Your task to perform on an android device: turn vacation reply on in the gmail app Image 0: 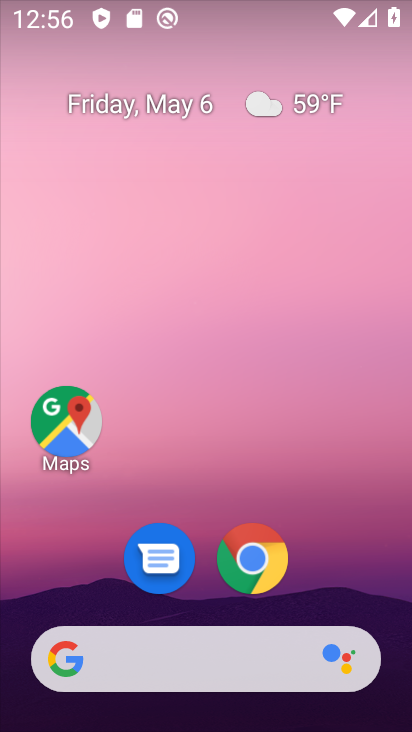
Step 0: drag from (220, 722) to (215, 283)
Your task to perform on an android device: turn vacation reply on in the gmail app Image 1: 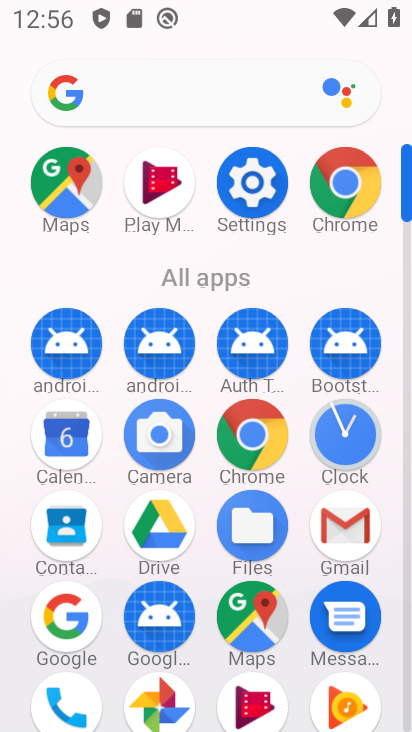
Step 1: click (348, 505)
Your task to perform on an android device: turn vacation reply on in the gmail app Image 2: 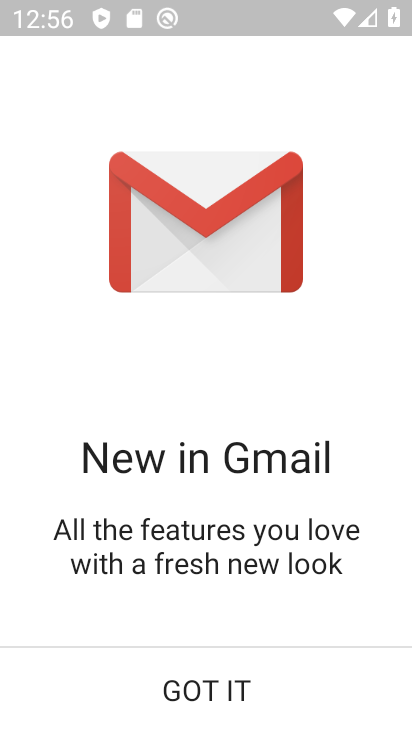
Step 2: click (222, 671)
Your task to perform on an android device: turn vacation reply on in the gmail app Image 3: 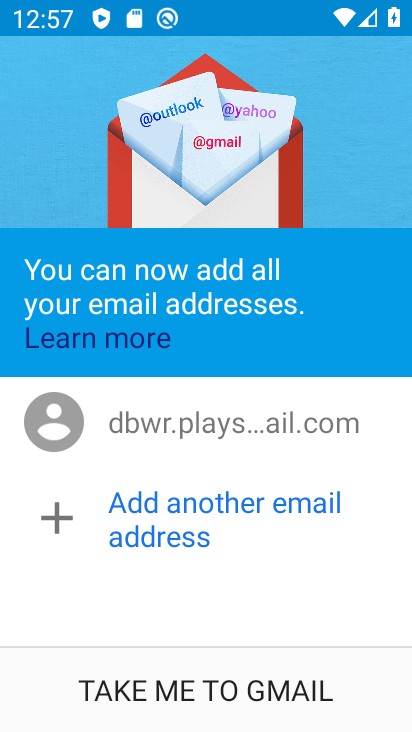
Step 3: click (211, 680)
Your task to perform on an android device: turn vacation reply on in the gmail app Image 4: 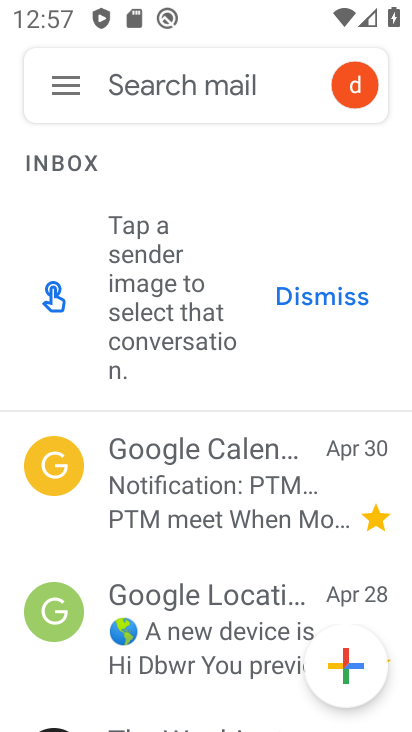
Step 4: click (67, 90)
Your task to perform on an android device: turn vacation reply on in the gmail app Image 5: 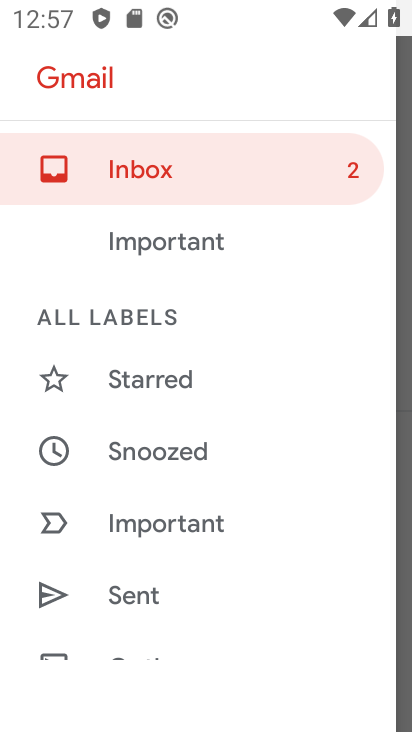
Step 5: drag from (183, 652) to (184, 455)
Your task to perform on an android device: turn vacation reply on in the gmail app Image 6: 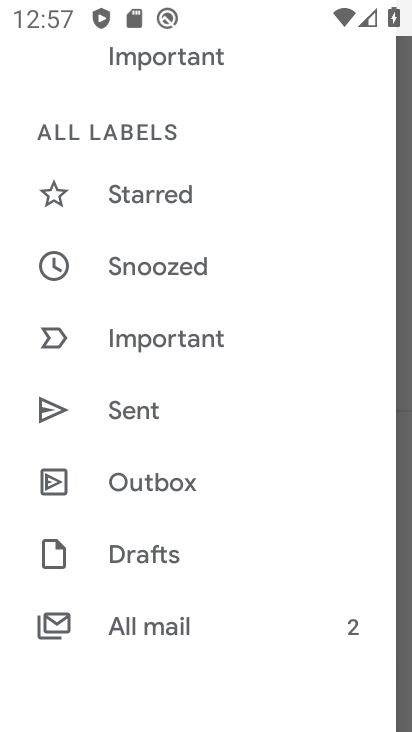
Step 6: drag from (172, 634) to (182, 297)
Your task to perform on an android device: turn vacation reply on in the gmail app Image 7: 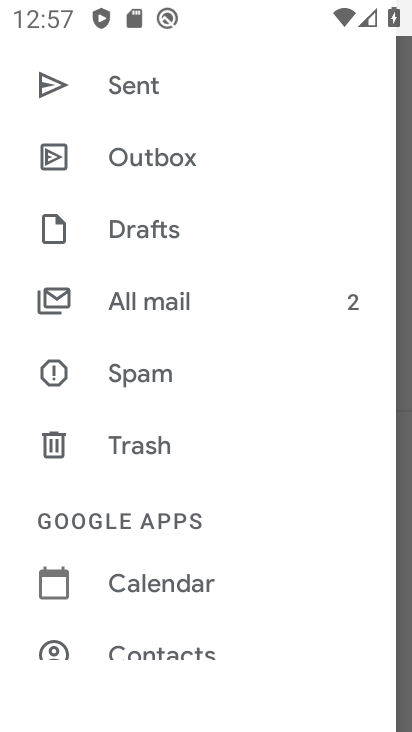
Step 7: drag from (165, 647) to (168, 344)
Your task to perform on an android device: turn vacation reply on in the gmail app Image 8: 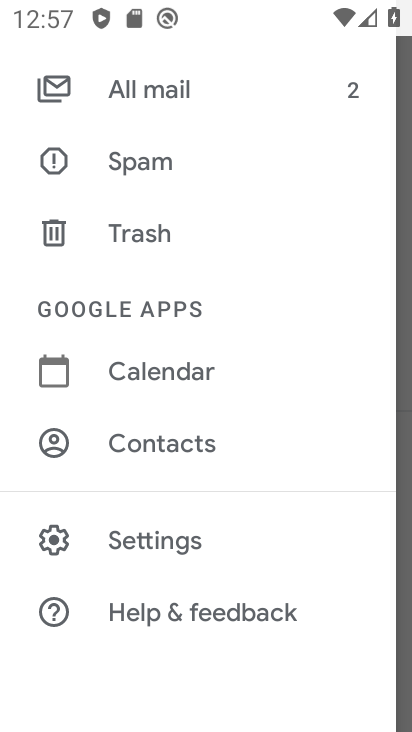
Step 8: click (153, 537)
Your task to perform on an android device: turn vacation reply on in the gmail app Image 9: 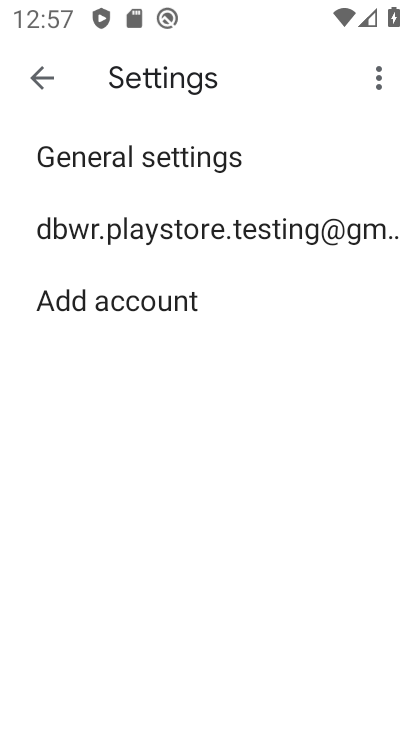
Step 9: click (200, 226)
Your task to perform on an android device: turn vacation reply on in the gmail app Image 10: 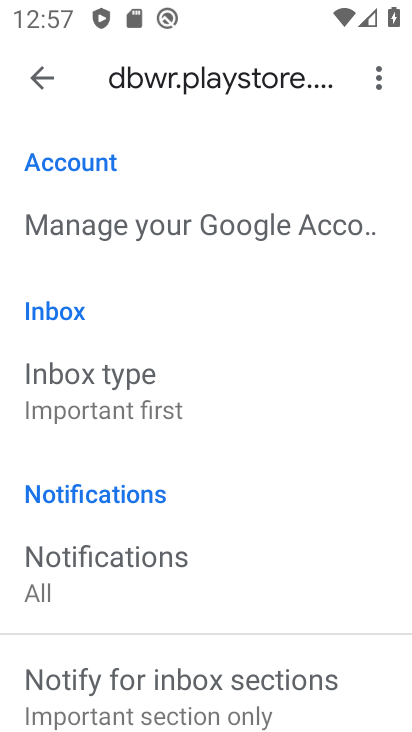
Step 10: drag from (167, 629) to (165, 407)
Your task to perform on an android device: turn vacation reply on in the gmail app Image 11: 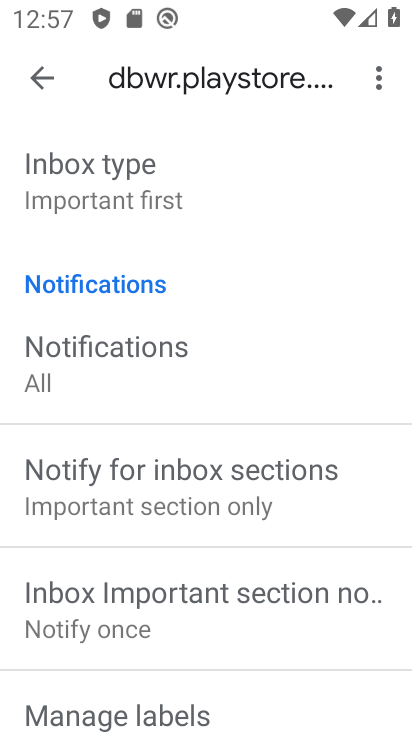
Step 11: drag from (181, 695) to (179, 523)
Your task to perform on an android device: turn vacation reply on in the gmail app Image 12: 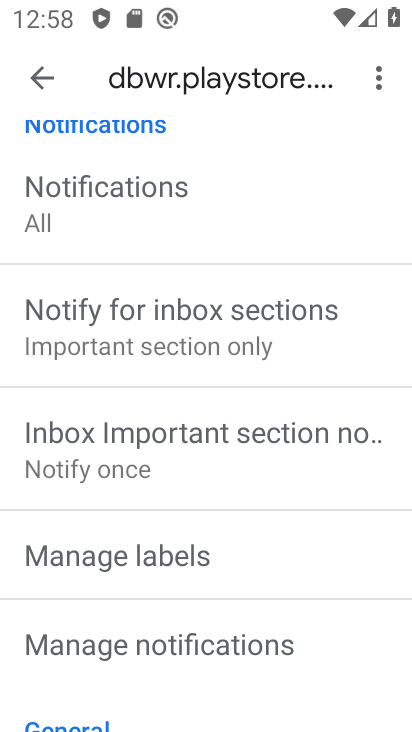
Step 12: drag from (158, 694) to (172, 394)
Your task to perform on an android device: turn vacation reply on in the gmail app Image 13: 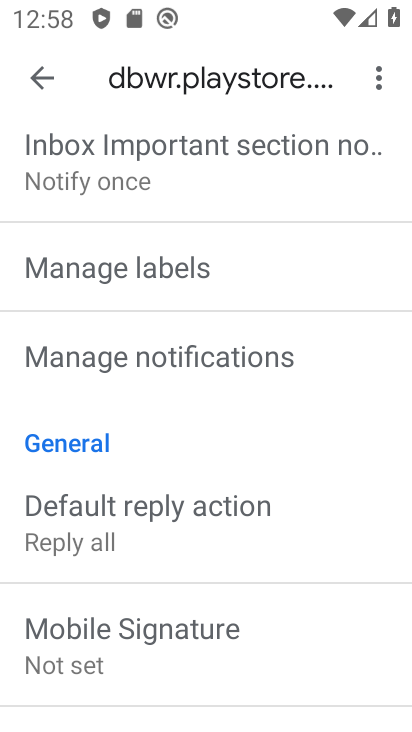
Step 13: drag from (181, 695) to (189, 289)
Your task to perform on an android device: turn vacation reply on in the gmail app Image 14: 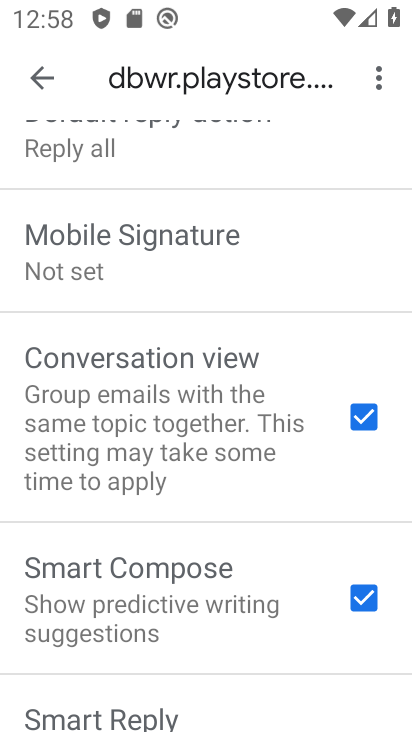
Step 14: drag from (171, 690) to (162, 377)
Your task to perform on an android device: turn vacation reply on in the gmail app Image 15: 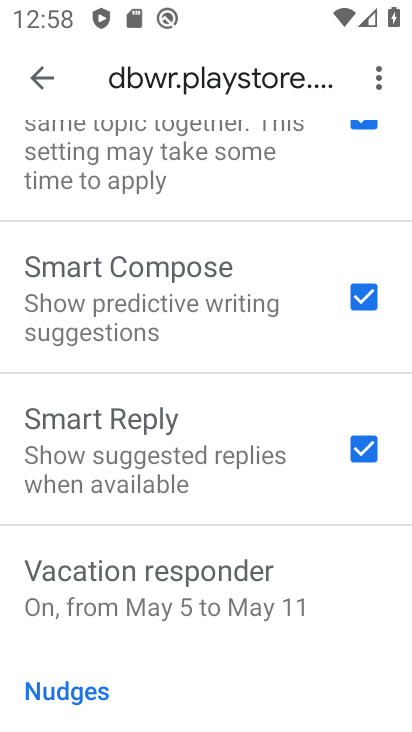
Step 15: click (166, 595)
Your task to perform on an android device: turn vacation reply on in the gmail app Image 16: 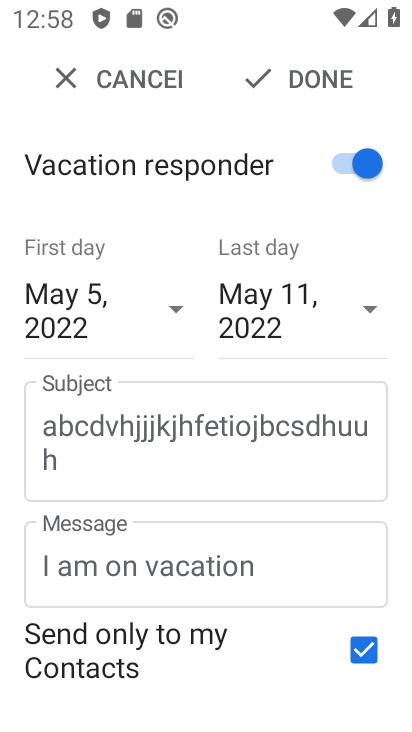
Step 16: task complete